Your task to perform on an android device: check the backup settings in the google photos Image 0: 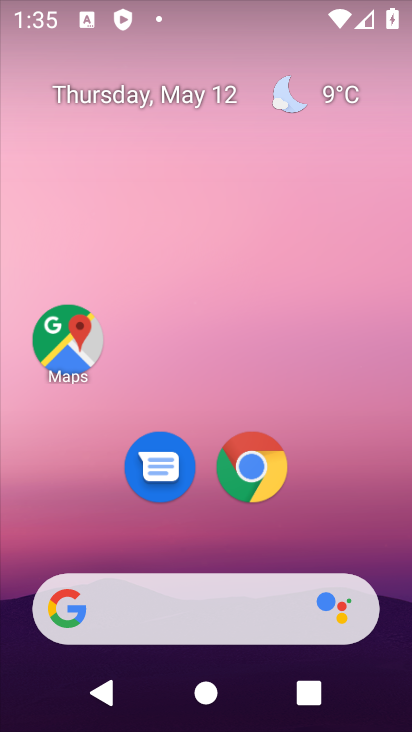
Step 0: drag from (324, 531) to (328, 263)
Your task to perform on an android device: check the backup settings in the google photos Image 1: 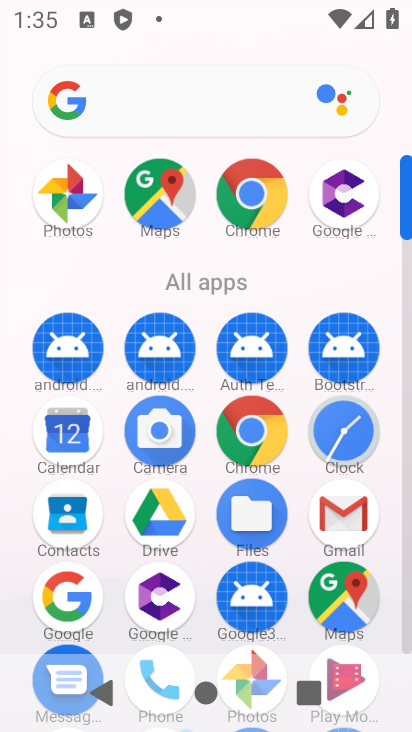
Step 1: click (64, 205)
Your task to perform on an android device: check the backup settings in the google photos Image 2: 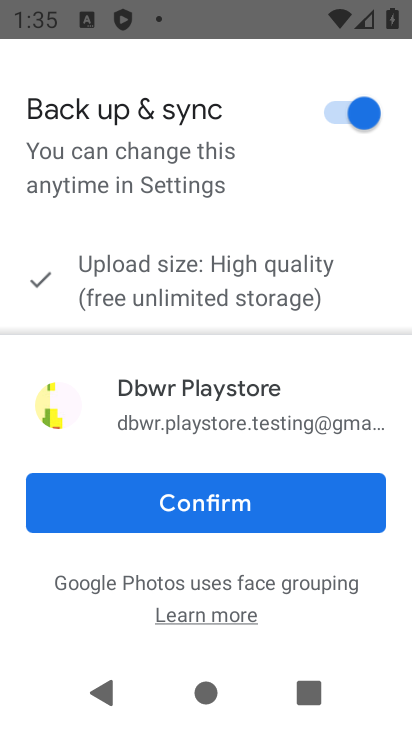
Step 2: click (221, 504)
Your task to perform on an android device: check the backup settings in the google photos Image 3: 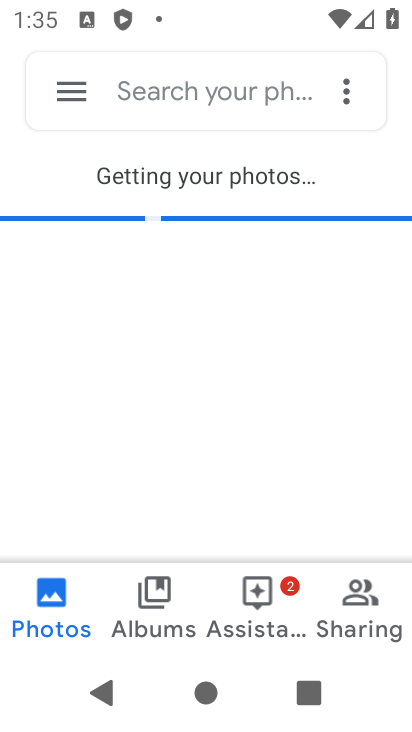
Step 3: click (67, 102)
Your task to perform on an android device: check the backup settings in the google photos Image 4: 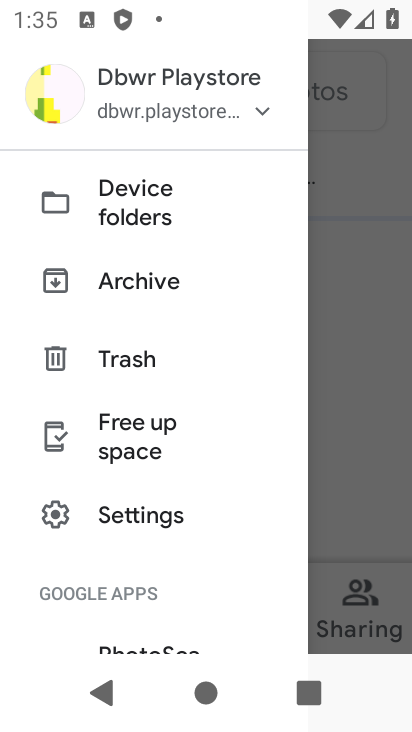
Step 4: click (157, 505)
Your task to perform on an android device: check the backup settings in the google photos Image 5: 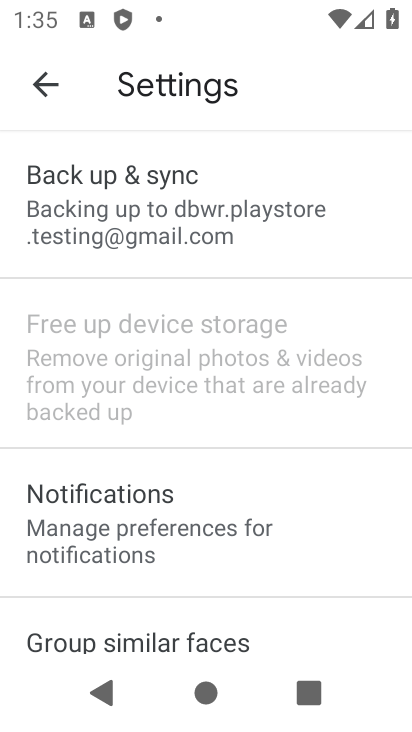
Step 5: click (62, 191)
Your task to perform on an android device: check the backup settings in the google photos Image 6: 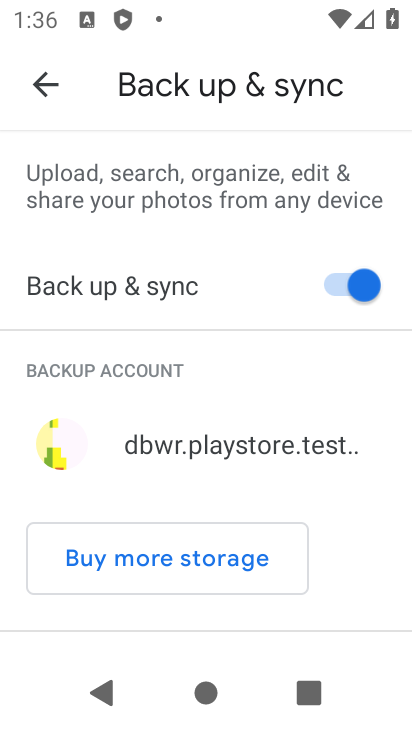
Step 6: task complete